Your task to perform on an android device: Search for "asus zenbook" on walmart.com, select the first entry, add it to the cart, then select checkout. Image 0: 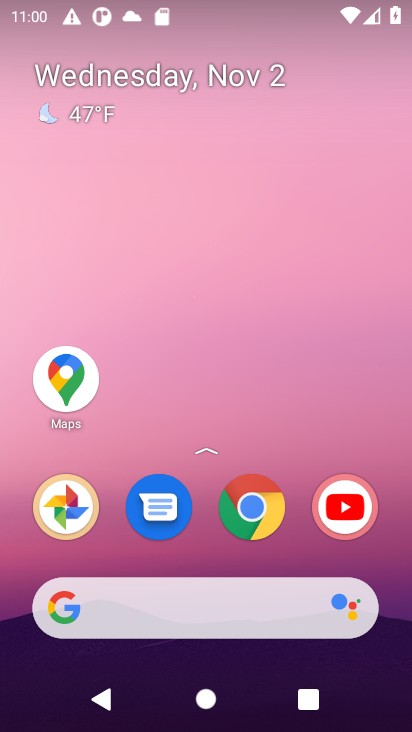
Step 0: click (226, 605)
Your task to perform on an android device: Search for "asus zenbook" on walmart.com, select the first entry, add it to the cart, then select checkout. Image 1: 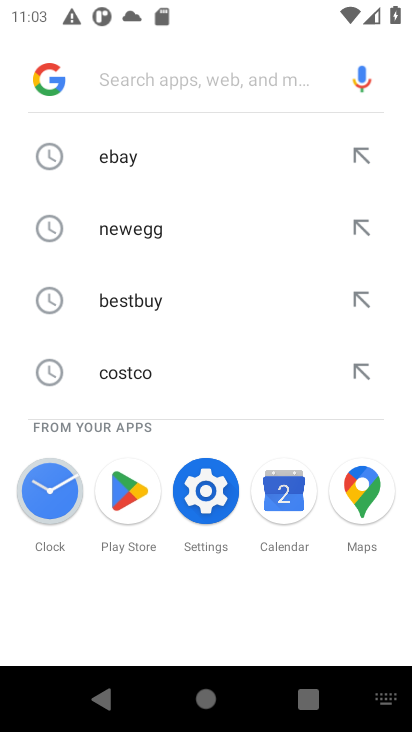
Step 1: type "walmart"
Your task to perform on an android device: Search for "asus zenbook" on walmart.com, select the first entry, add it to the cart, then select checkout. Image 2: 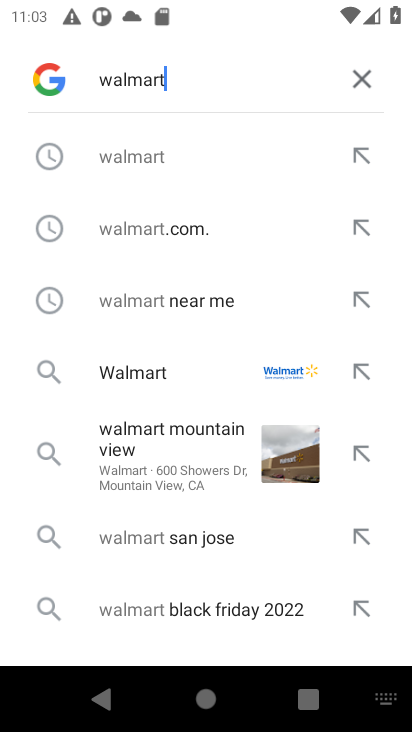
Step 2: click (140, 141)
Your task to perform on an android device: Search for "asus zenbook" on walmart.com, select the first entry, add it to the cart, then select checkout. Image 3: 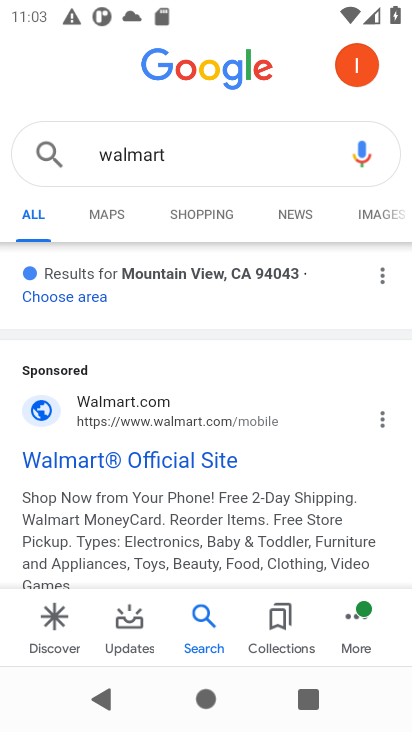
Step 3: click (124, 447)
Your task to perform on an android device: Search for "asus zenbook" on walmart.com, select the first entry, add it to the cart, then select checkout. Image 4: 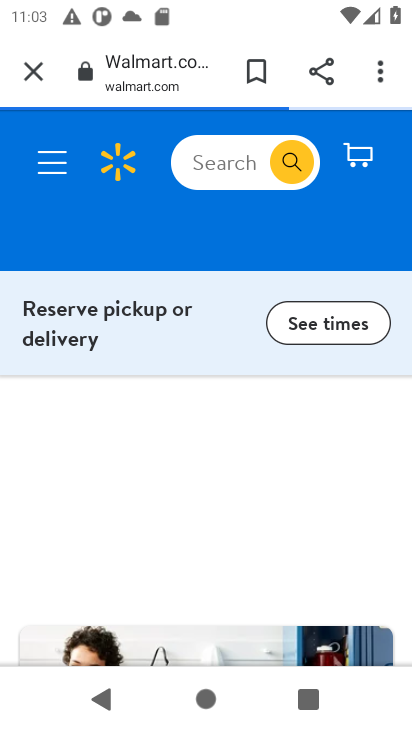
Step 4: click (207, 175)
Your task to perform on an android device: Search for "asus zenbook" on walmart.com, select the first entry, add it to the cart, then select checkout. Image 5: 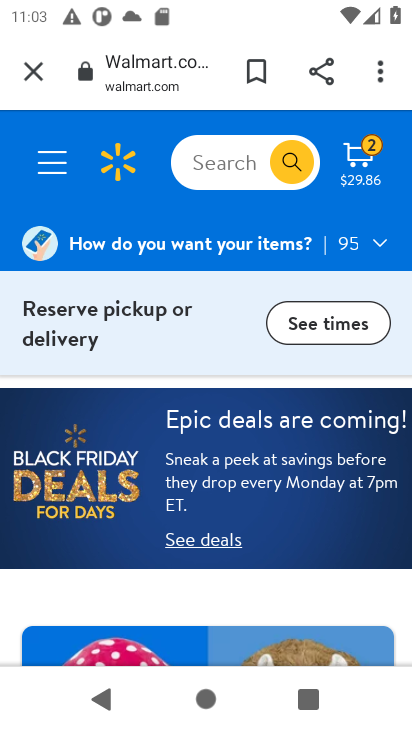
Step 5: type "asus zenbook"
Your task to perform on an android device: Search for "asus zenbook" on walmart.com, select the first entry, add it to the cart, then select checkout. Image 6: 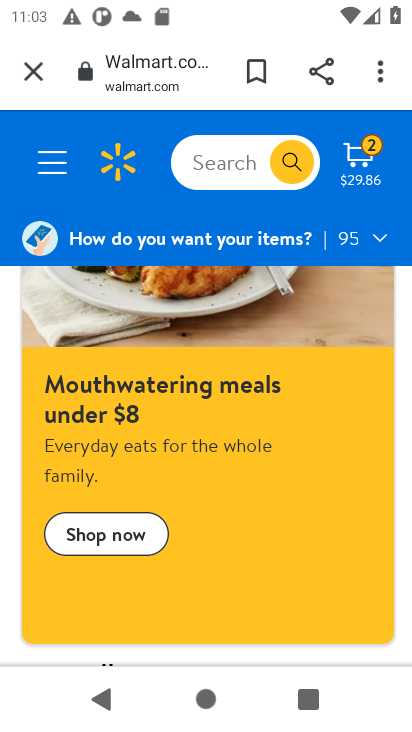
Step 6: task complete